Your task to perform on an android device: Go to accessibility settings Image 0: 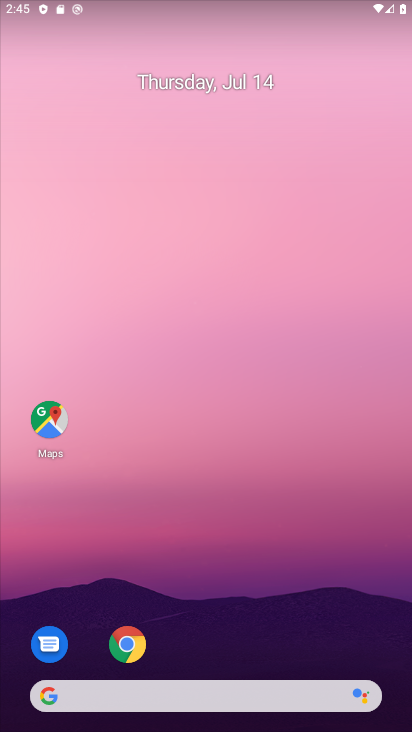
Step 0: click (212, 13)
Your task to perform on an android device: Go to accessibility settings Image 1: 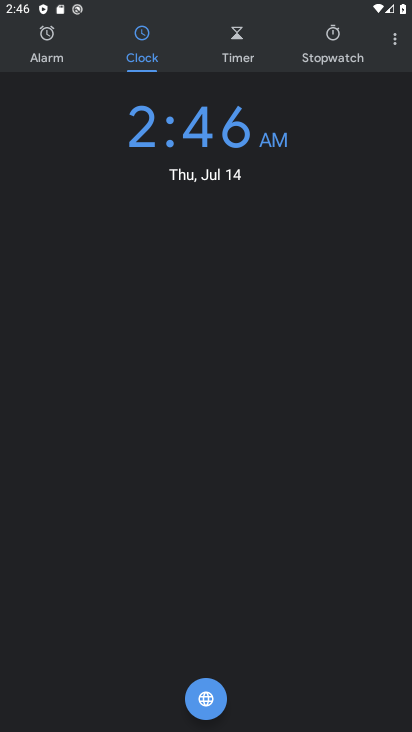
Step 1: click (298, 106)
Your task to perform on an android device: Go to accessibility settings Image 2: 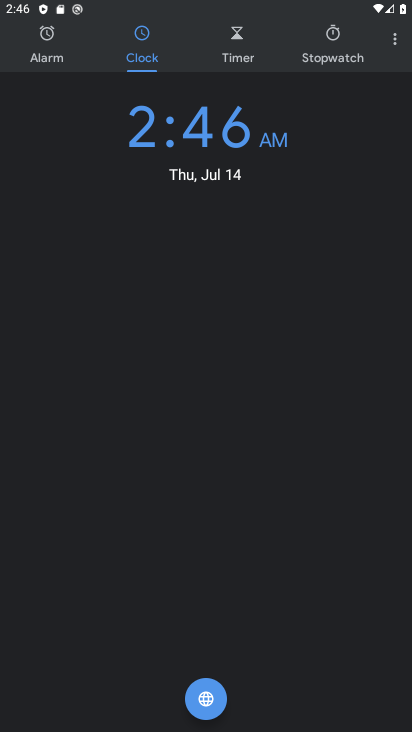
Step 2: drag from (266, 577) to (231, 355)
Your task to perform on an android device: Go to accessibility settings Image 3: 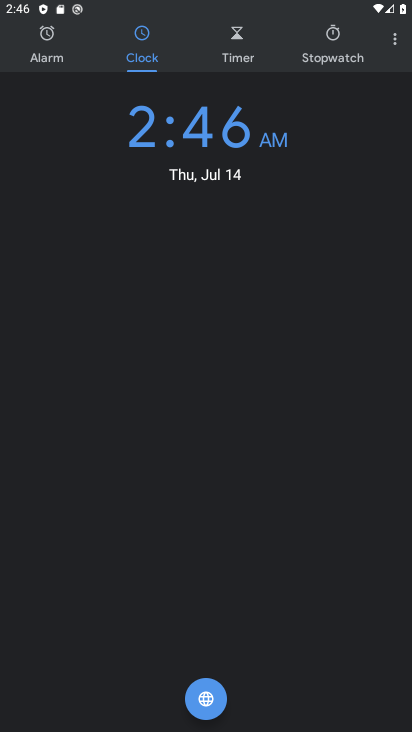
Step 3: click (385, 49)
Your task to perform on an android device: Go to accessibility settings Image 4: 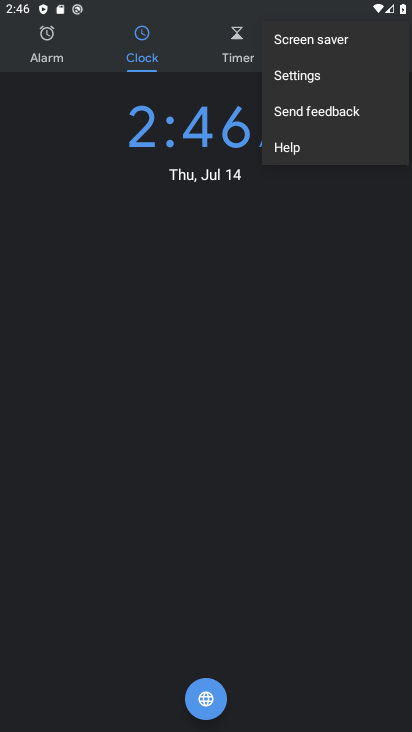
Step 4: click (309, 75)
Your task to perform on an android device: Go to accessibility settings Image 5: 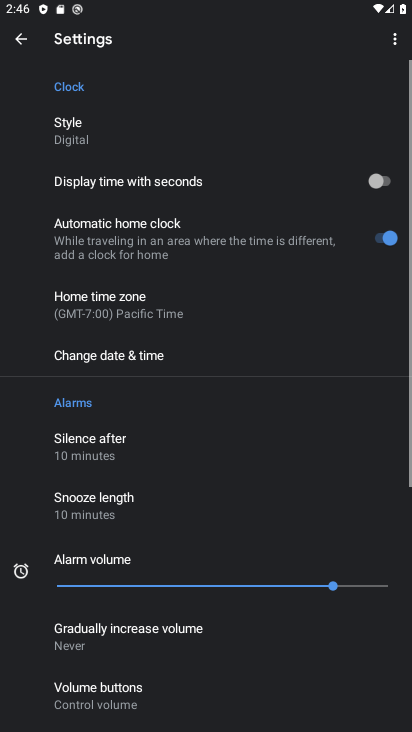
Step 5: drag from (242, 534) to (229, 281)
Your task to perform on an android device: Go to accessibility settings Image 6: 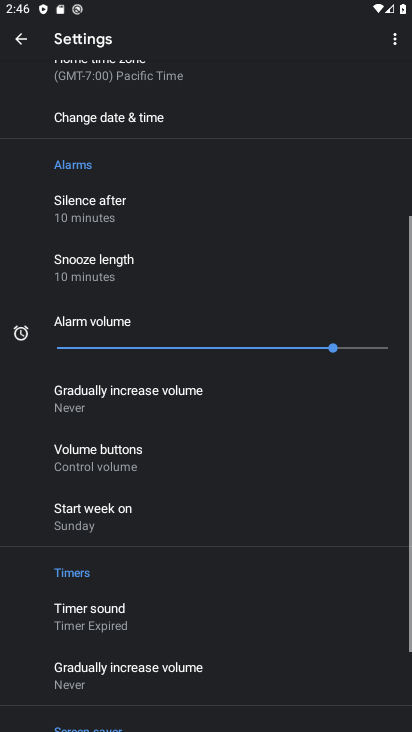
Step 6: drag from (215, 210) to (229, 492)
Your task to perform on an android device: Go to accessibility settings Image 7: 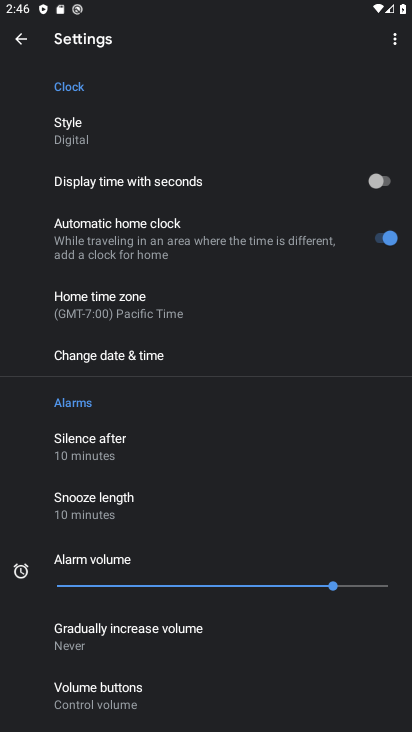
Step 7: drag from (211, 512) to (190, 290)
Your task to perform on an android device: Go to accessibility settings Image 8: 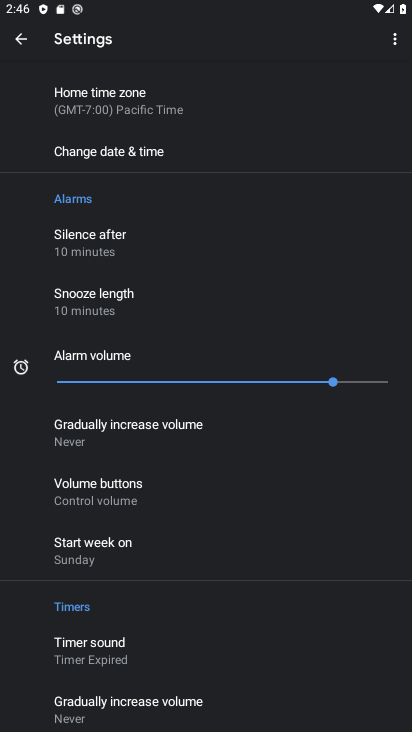
Step 8: drag from (242, 496) to (240, 227)
Your task to perform on an android device: Go to accessibility settings Image 9: 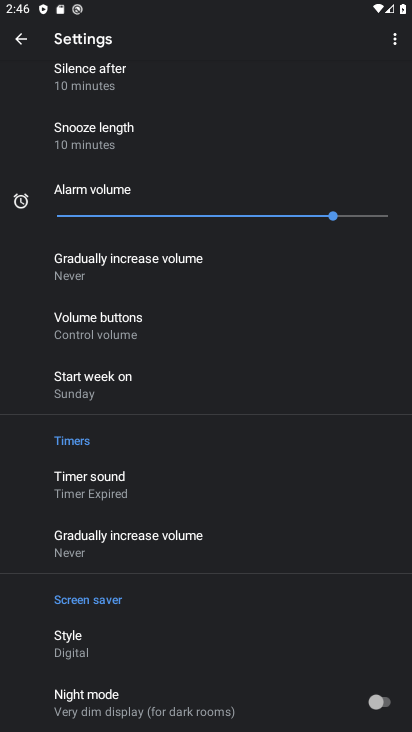
Step 9: click (29, 45)
Your task to perform on an android device: Go to accessibility settings Image 10: 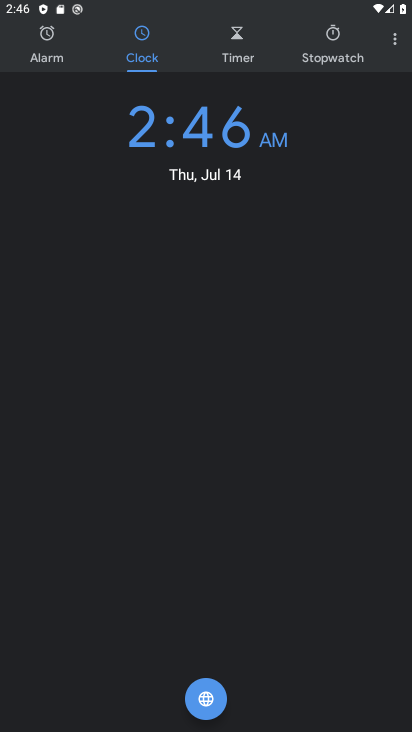
Step 10: press home button
Your task to perform on an android device: Go to accessibility settings Image 11: 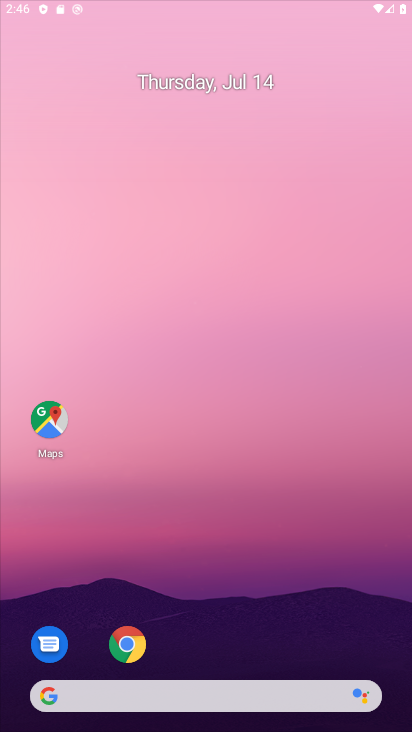
Step 11: drag from (194, 583) to (245, 109)
Your task to perform on an android device: Go to accessibility settings Image 12: 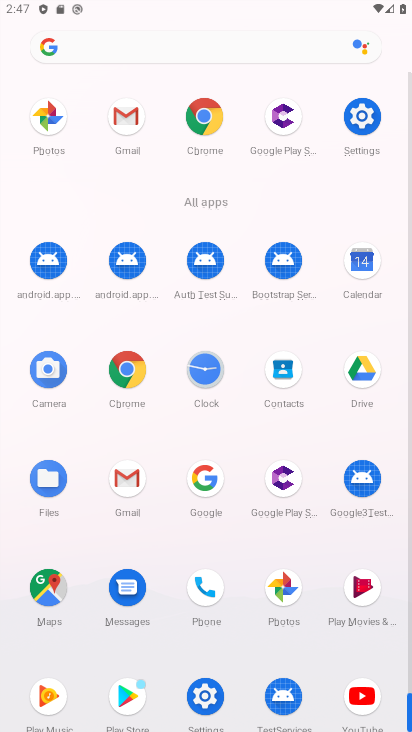
Step 12: click (369, 122)
Your task to perform on an android device: Go to accessibility settings Image 13: 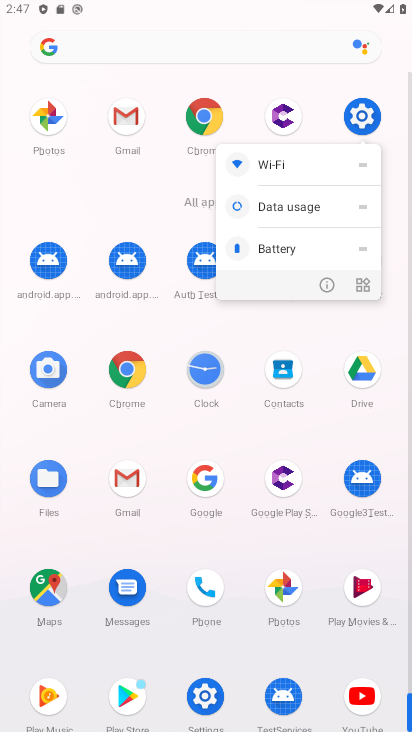
Step 13: click (326, 290)
Your task to perform on an android device: Go to accessibility settings Image 14: 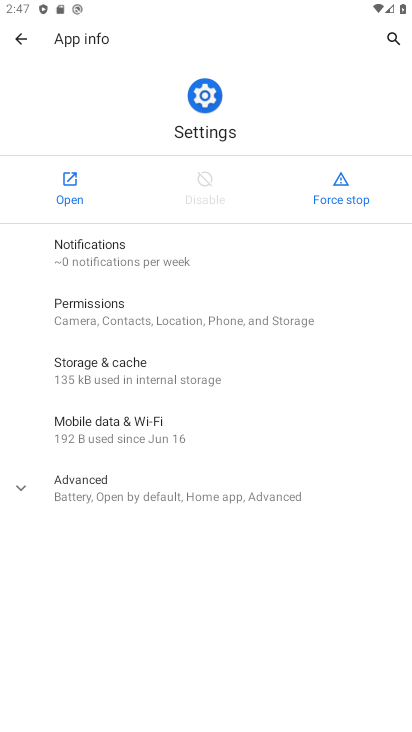
Step 14: click (66, 204)
Your task to perform on an android device: Go to accessibility settings Image 15: 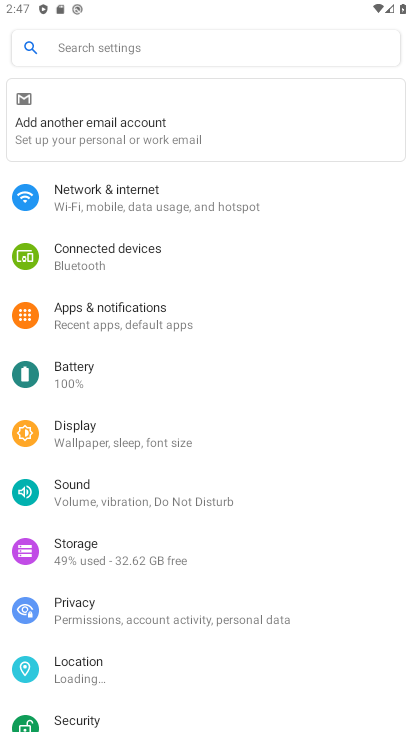
Step 15: drag from (151, 511) to (194, 235)
Your task to perform on an android device: Go to accessibility settings Image 16: 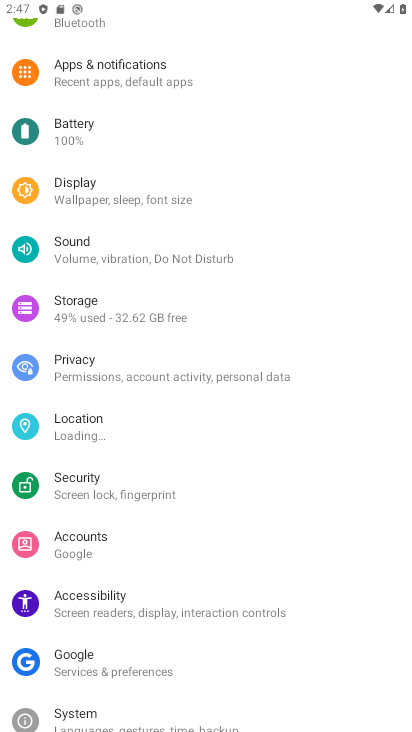
Step 16: drag from (188, 561) to (193, 361)
Your task to perform on an android device: Go to accessibility settings Image 17: 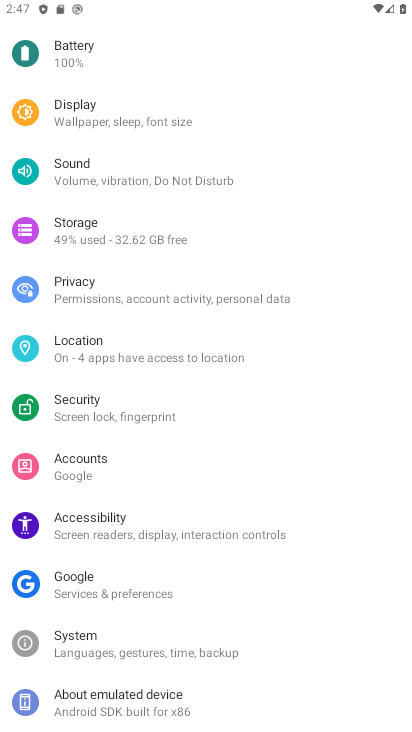
Step 17: click (136, 531)
Your task to perform on an android device: Go to accessibility settings Image 18: 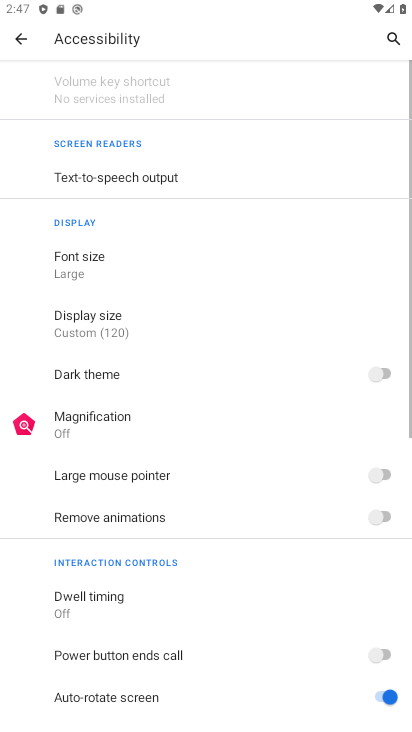
Step 18: task complete